Your task to perform on an android device: Go to Wikipedia Image 0: 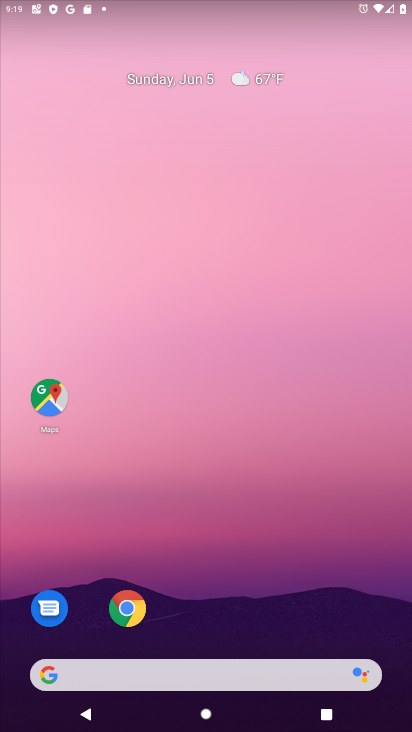
Step 0: click (126, 607)
Your task to perform on an android device: Go to Wikipedia Image 1: 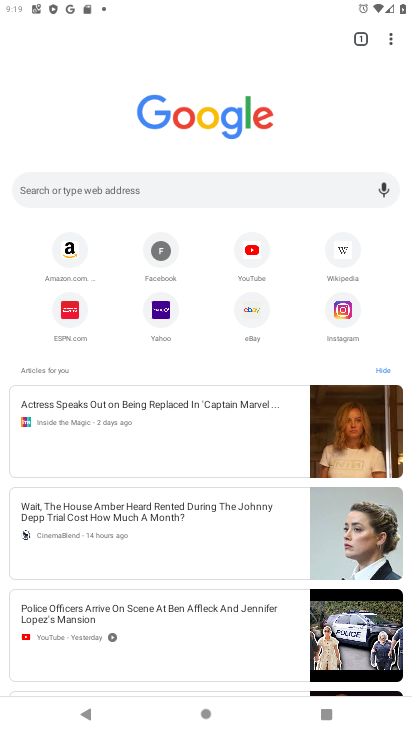
Step 1: click (325, 245)
Your task to perform on an android device: Go to Wikipedia Image 2: 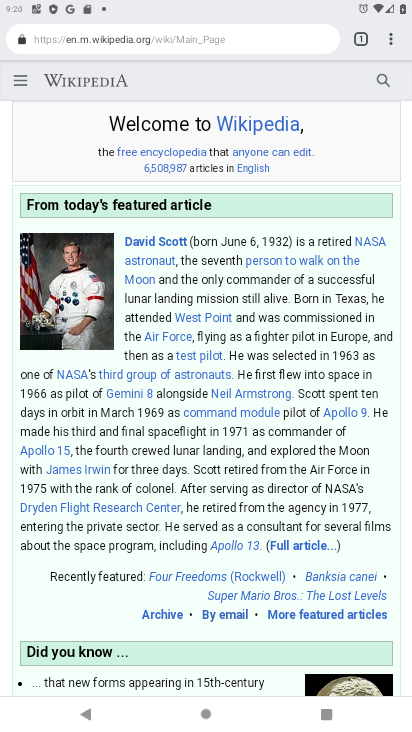
Step 2: task complete